Your task to perform on an android device: Go to eBay Image 0: 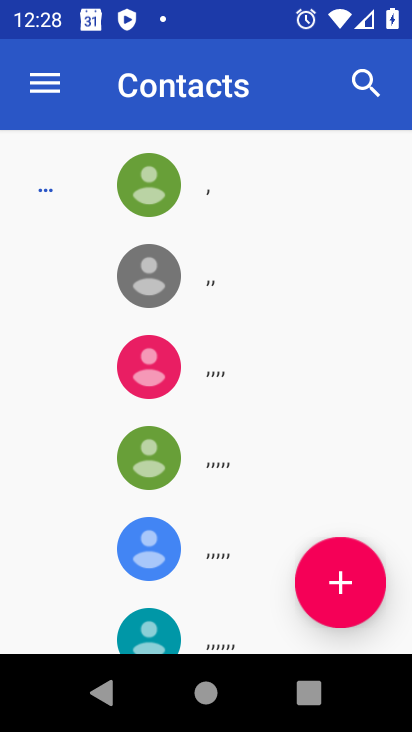
Step 0: press back button
Your task to perform on an android device: Go to eBay Image 1: 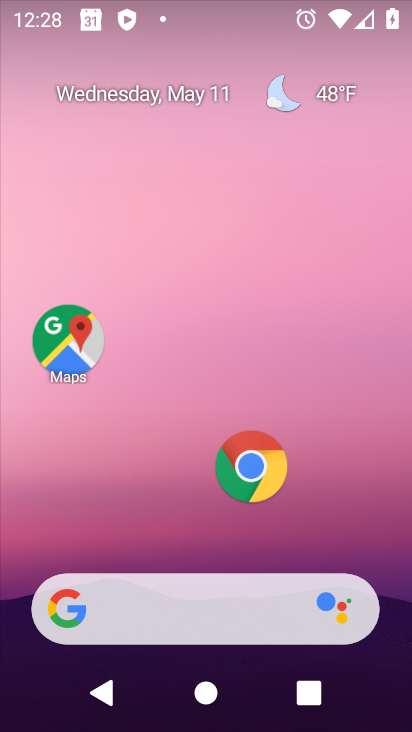
Step 1: click (248, 467)
Your task to perform on an android device: Go to eBay Image 2: 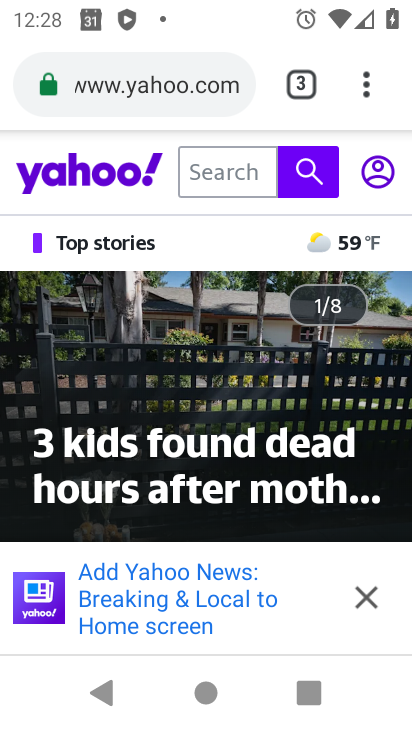
Step 2: click (302, 86)
Your task to perform on an android device: Go to eBay Image 3: 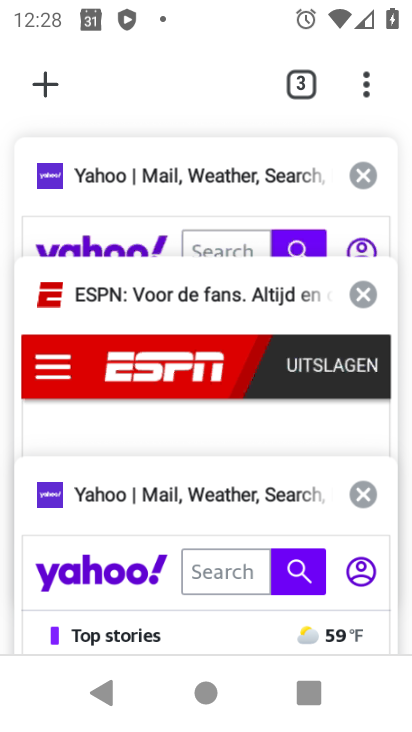
Step 3: click (43, 79)
Your task to perform on an android device: Go to eBay Image 4: 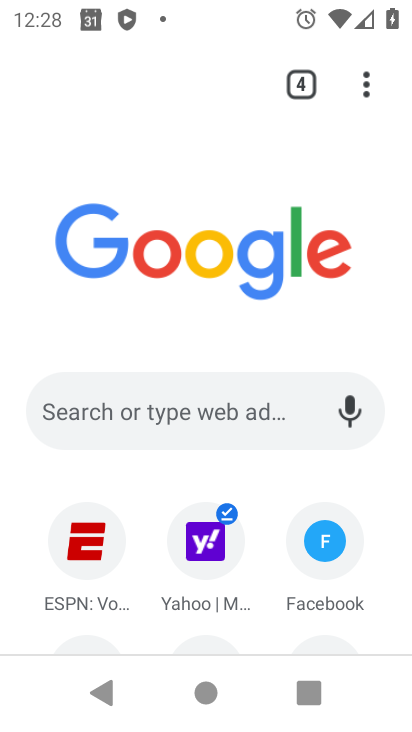
Step 4: click (122, 417)
Your task to perform on an android device: Go to eBay Image 5: 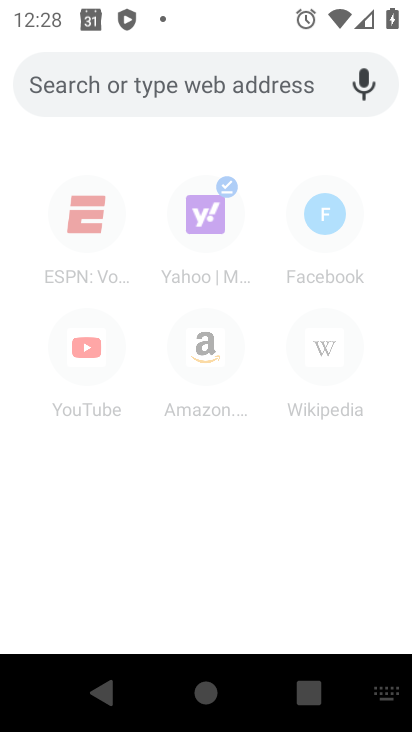
Step 5: click (76, 75)
Your task to perform on an android device: Go to eBay Image 6: 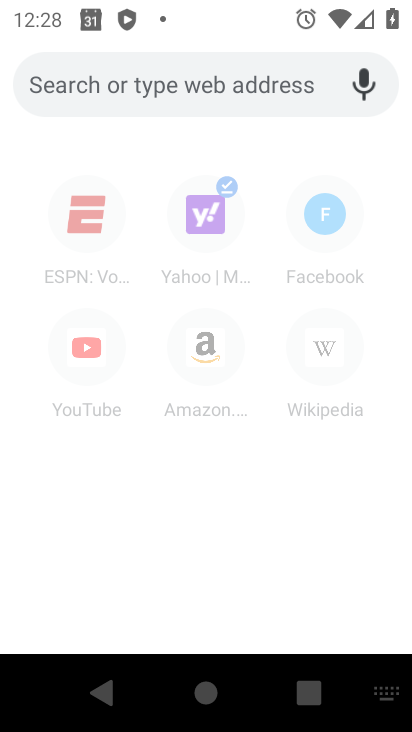
Step 6: type "ebay"
Your task to perform on an android device: Go to eBay Image 7: 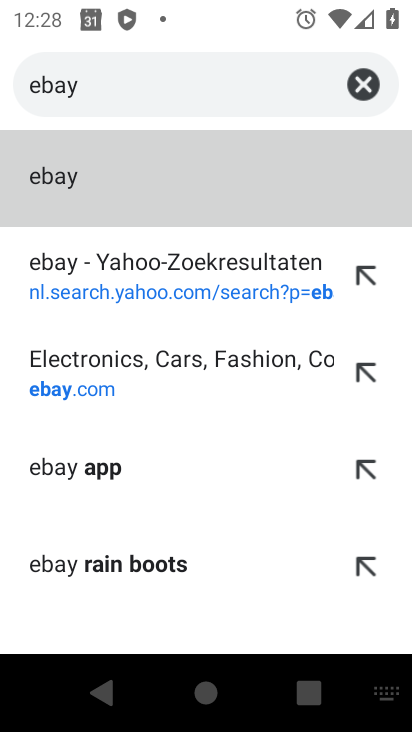
Step 7: click (162, 285)
Your task to perform on an android device: Go to eBay Image 8: 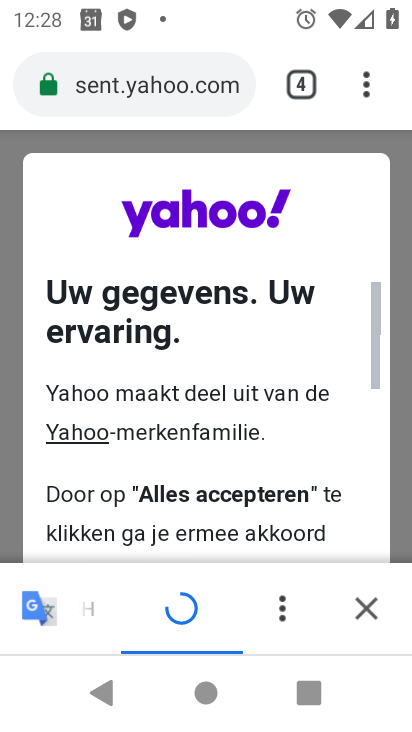
Step 8: task complete